Your task to perform on an android device: Open the web browser Image 0: 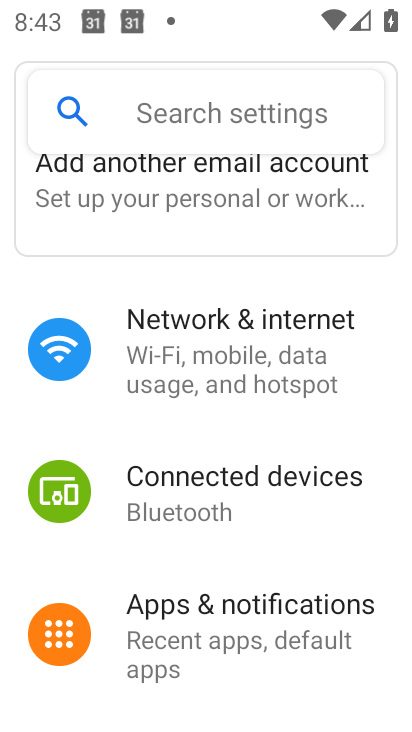
Step 0: press home button
Your task to perform on an android device: Open the web browser Image 1: 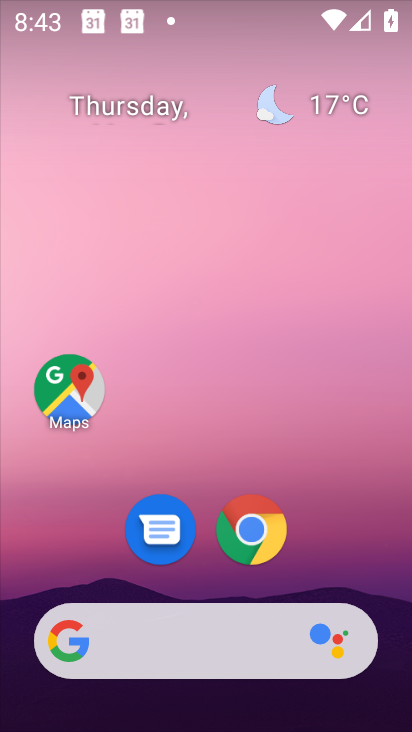
Step 1: click (260, 524)
Your task to perform on an android device: Open the web browser Image 2: 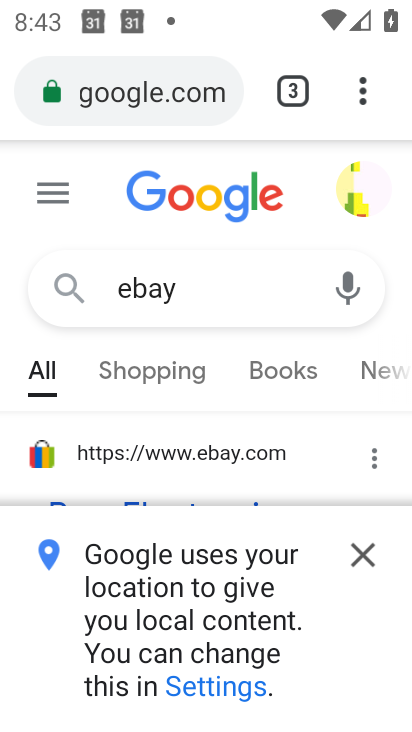
Step 2: task complete